Your task to perform on an android device: Open Android settings Image 0: 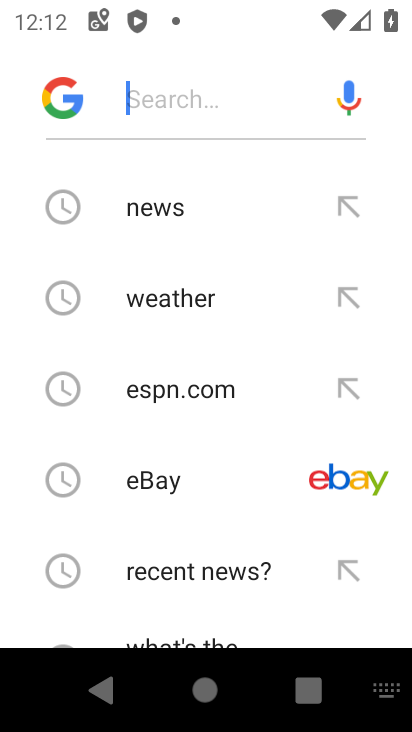
Step 0: press home button
Your task to perform on an android device: Open Android settings Image 1: 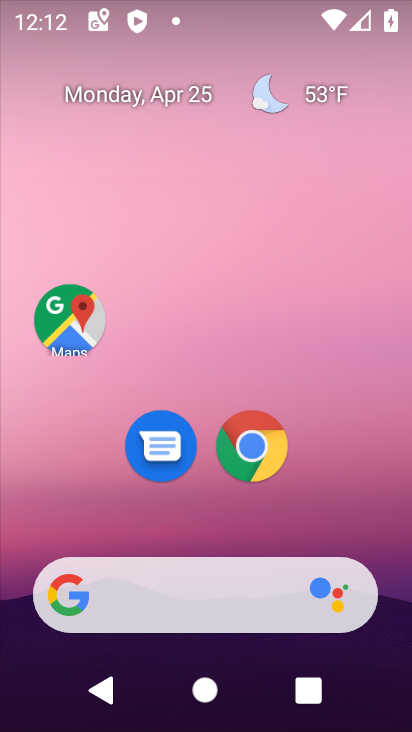
Step 1: drag from (192, 531) to (275, 9)
Your task to perform on an android device: Open Android settings Image 2: 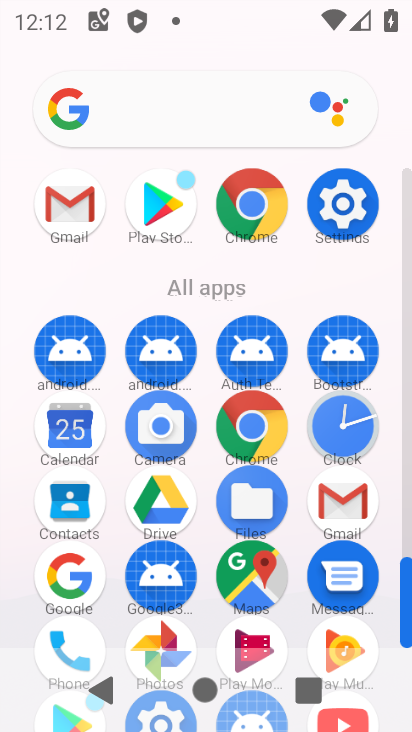
Step 2: click (337, 201)
Your task to perform on an android device: Open Android settings Image 3: 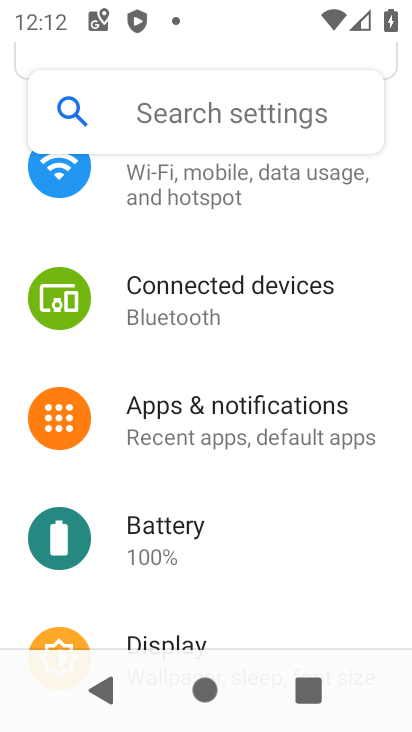
Step 3: drag from (219, 567) to (288, 27)
Your task to perform on an android device: Open Android settings Image 4: 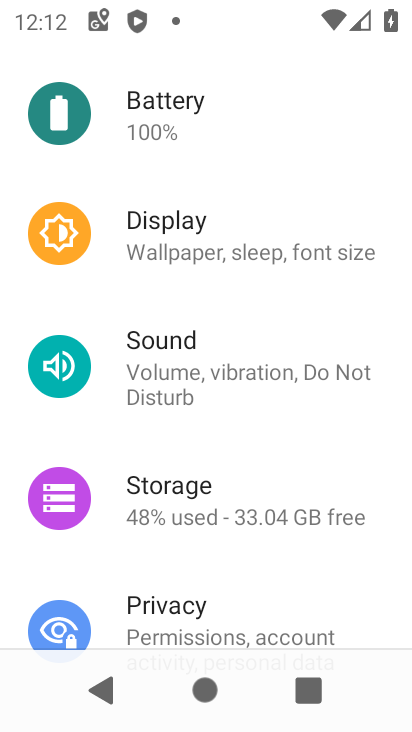
Step 4: drag from (202, 459) to (275, 7)
Your task to perform on an android device: Open Android settings Image 5: 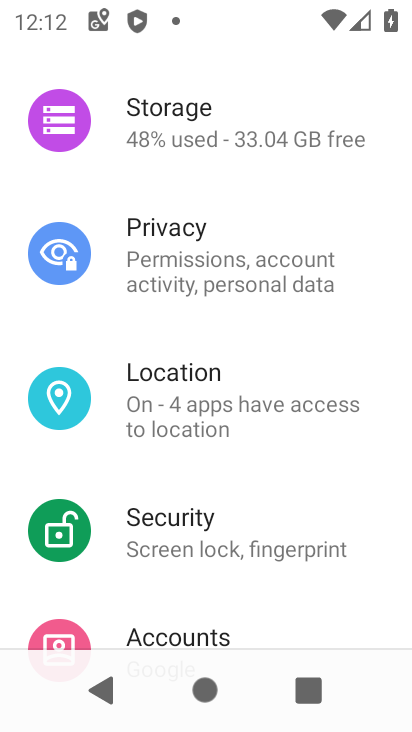
Step 5: drag from (225, 593) to (287, 21)
Your task to perform on an android device: Open Android settings Image 6: 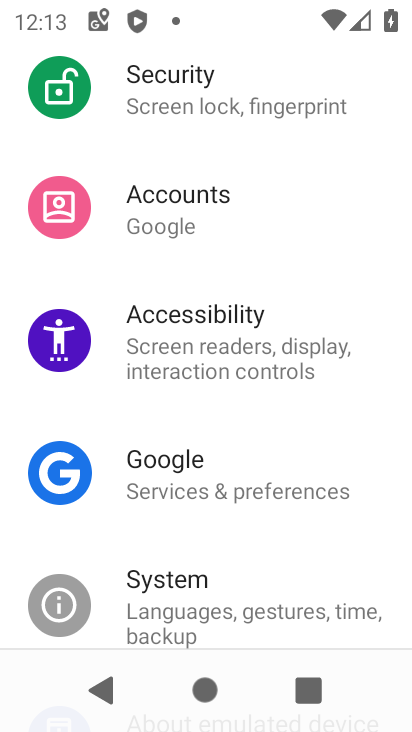
Step 6: click (191, 602)
Your task to perform on an android device: Open Android settings Image 7: 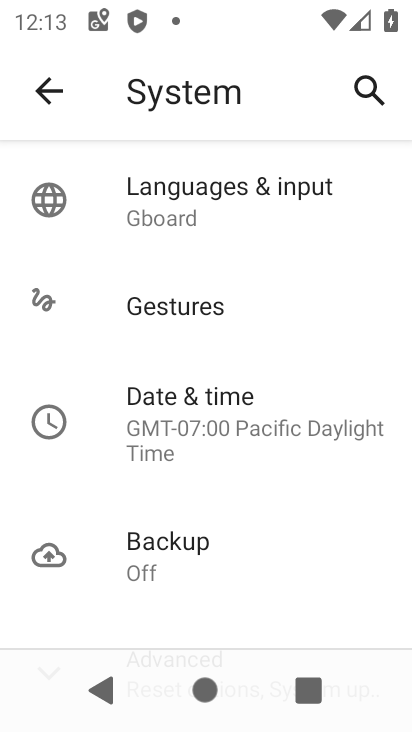
Step 7: click (47, 82)
Your task to perform on an android device: Open Android settings Image 8: 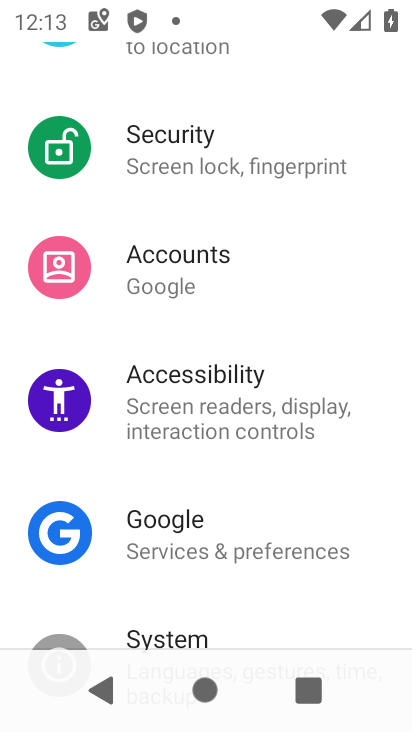
Step 8: drag from (177, 613) to (307, 20)
Your task to perform on an android device: Open Android settings Image 9: 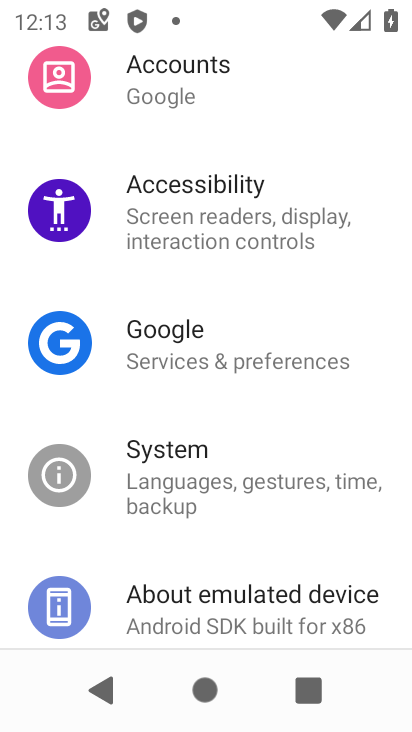
Step 9: click (206, 613)
Your task to perform on an android device: Open Android settings Image 10: 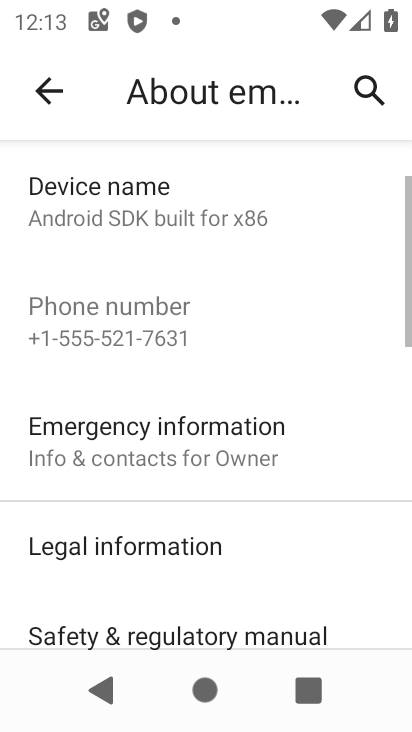
Step 10: drag from (136, 536) to (190, 124)
Your task to perform on an android device: Open Android settings Image 11: 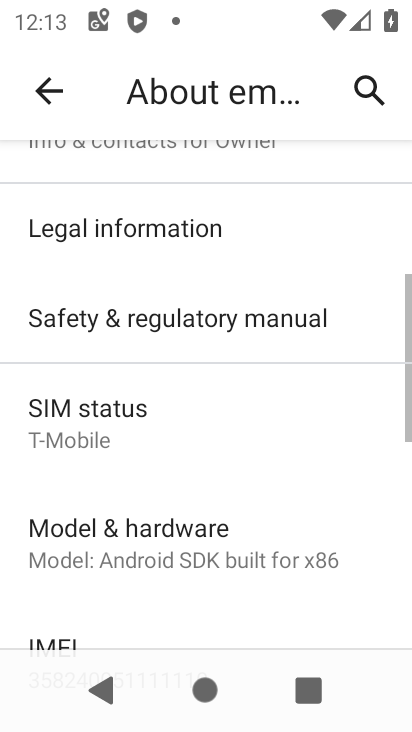
Step 11: drag from (124, 567) to (169, 159)
Your task to perform on an android device: Open Android settings Image 12: 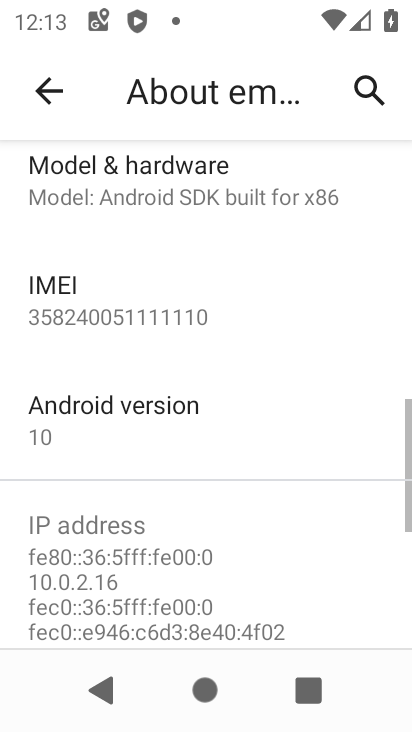
Step 12: click (104, 428)
Your task to perform on an android device: Open Android settings Image 13: 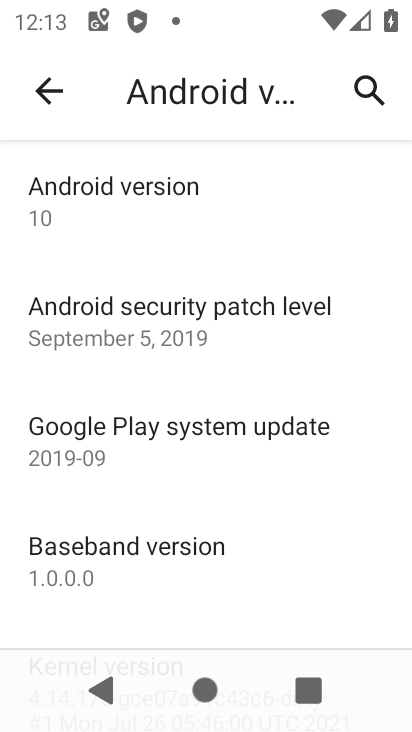
Step 13: task complete